Your task to perform on an android device: turn off notifications settings in the gmail app Image 0: 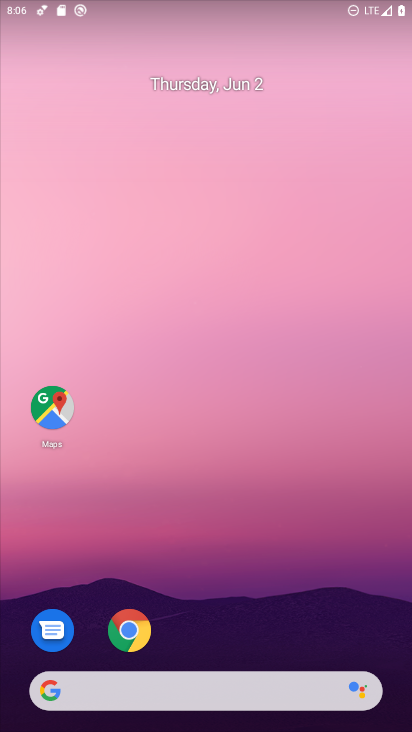
Step 0: drag from (119, 726) to (96, 168)
Your task to perform on an android device: turn off notifications settings in the gmail app Image 1: 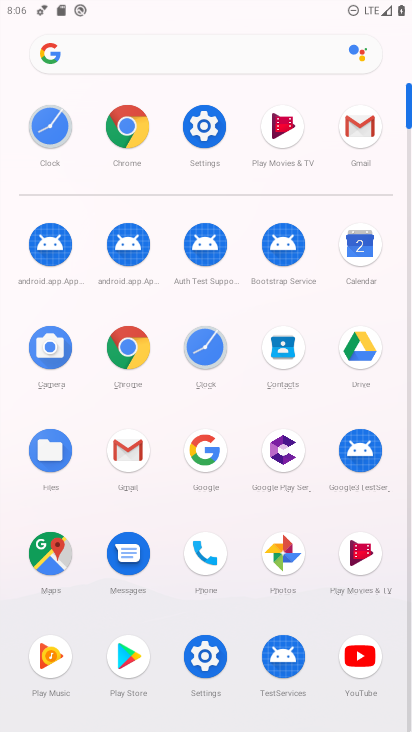
Step 1: click (123, 470)
Your task to perform on an android device: turn off notifications settings in the gmail app Image 2: 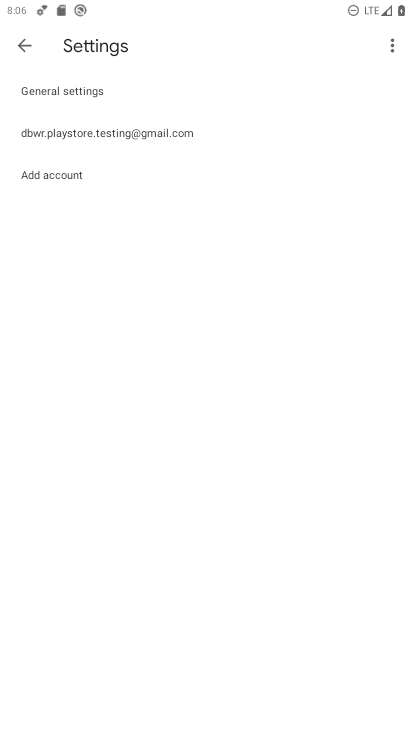
Step 2: click (16, 48)
Your task to perform on an android device: turn off notifications settings in the gmail app Image 3: 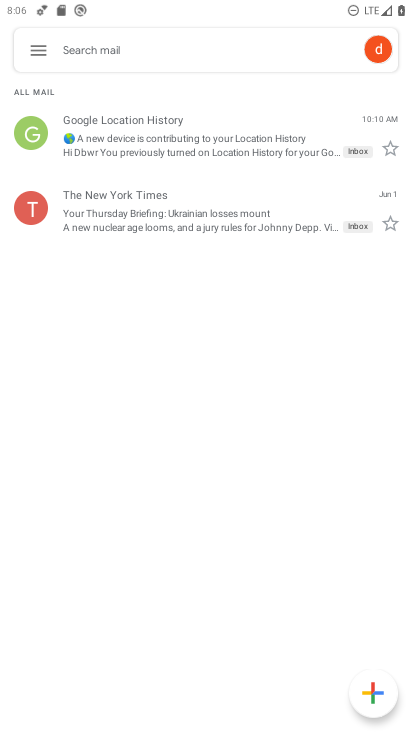
Step 3: click (28, 62)
Your task to perform on an android device: turn off notifications settings in the gmail app Image 4: 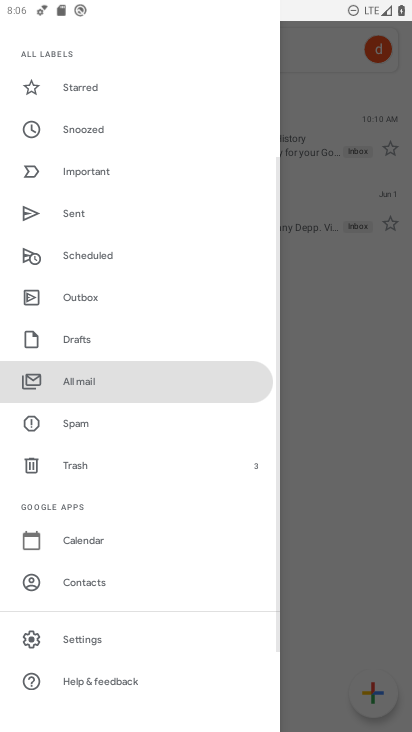
Step 4: click (58, 638)
Your task to perform on an android device: turn off notifications settings in the gmail app Image 5: 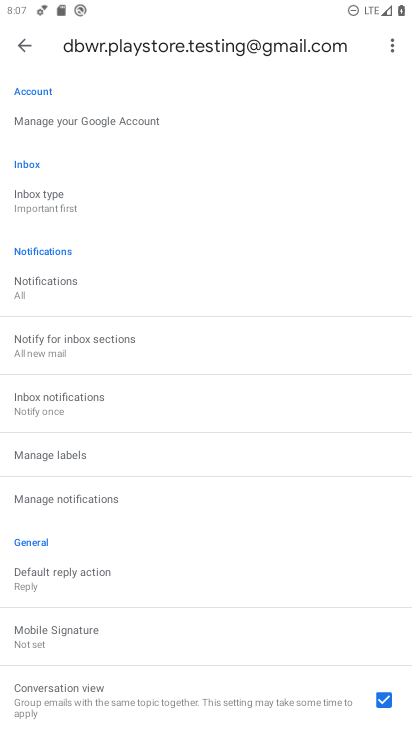
Step 5: click (67, 293)
Your task to perform on an android device: turn off notifications settings in the gmail app Image 6: 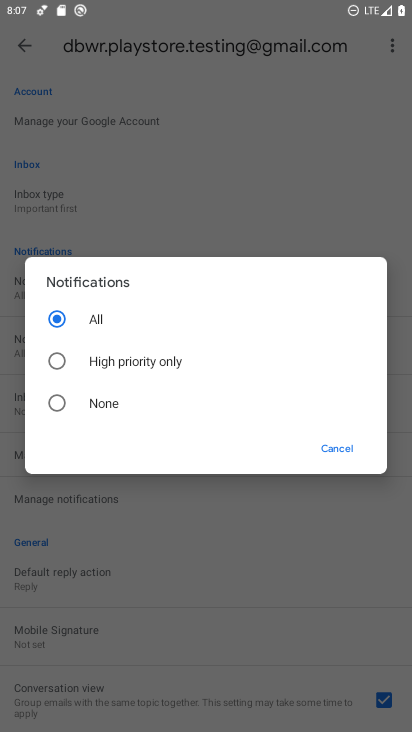
Step 6: click (96, 404)
Your task to perform on an android device: turn off notifications settings in the gmail app Image 7: 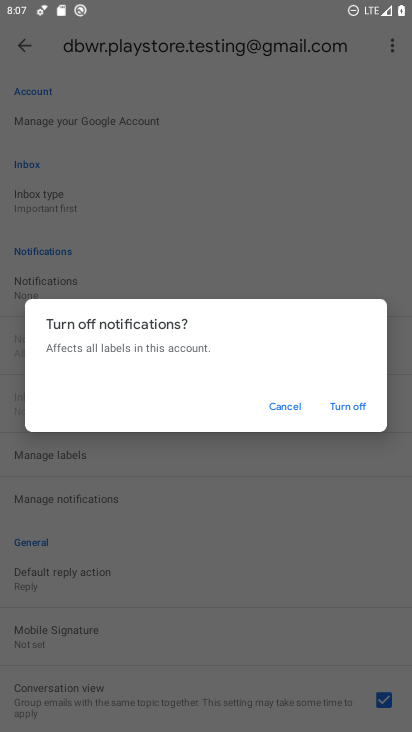
Step 7: click (361, 408)
Your task to perform on an android device: turn off notifications settings in the gmail app Image 8: 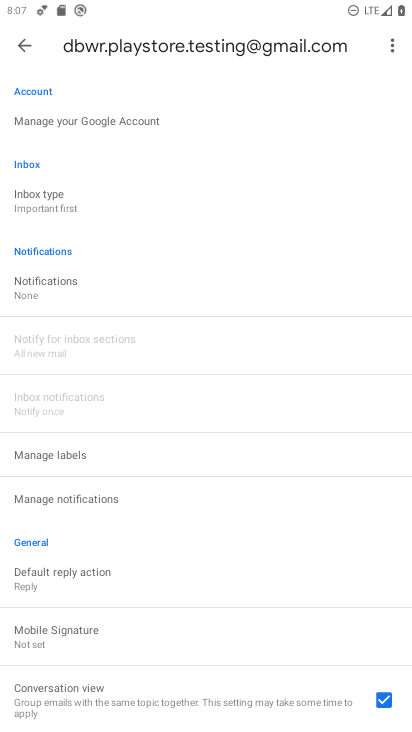
Step 8: task complete